Your task to perform on an android device: What's the weather going to be tomorrow? Image 0: 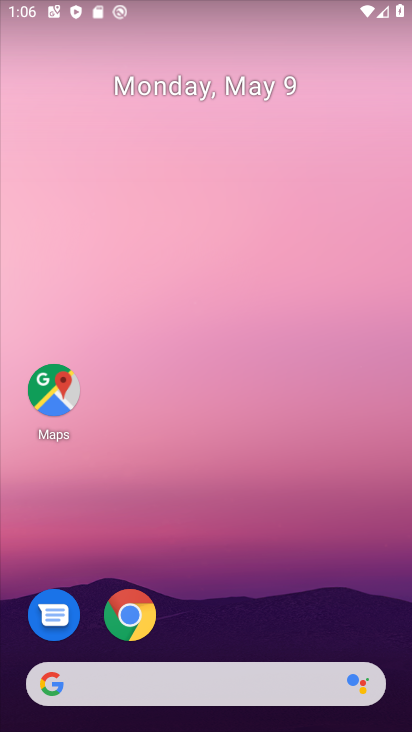
Step 0: drag from (207, 612) to (145, 57)
Your task to perform on an android device: What's the weather going to be tomorrow? Image 1: 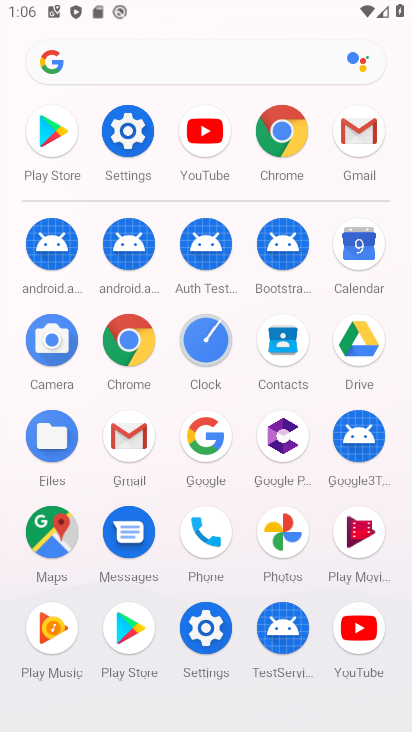
Step 1: click (201, 433)
Your task to perform on an android device: What's the weather going to be tomorrow? Image 2: 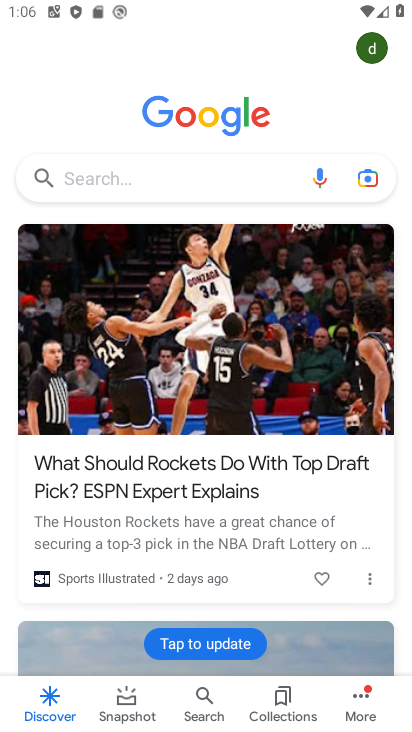
Step 2: click (218, 173)
Your task to perform on an android device: What's the weather going to be tomorrow? Image 3: 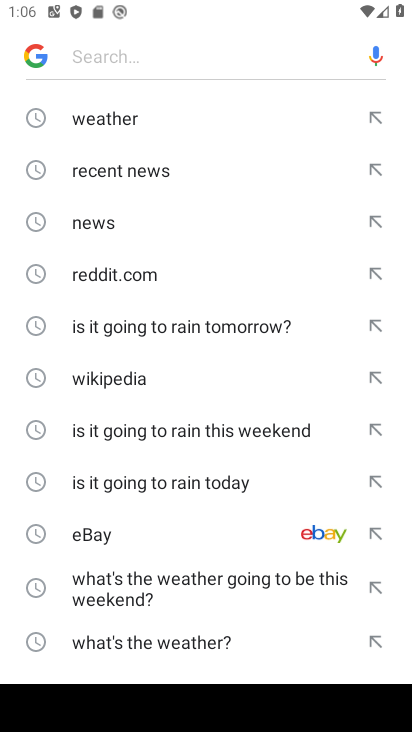
Step 3: click (135, 117)
Your task to perform on an android device: What's the weather going to be tomorrow? Image 4: 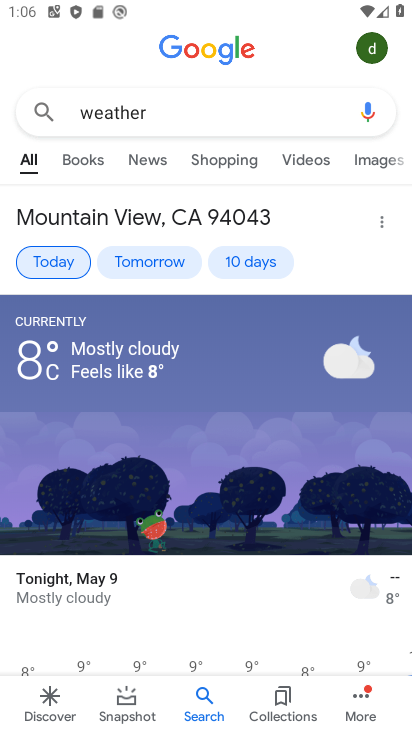
Step 4: click (150, 260)
Your task to perform on an android device: What's the weather going to be tomorrow? Image 5: 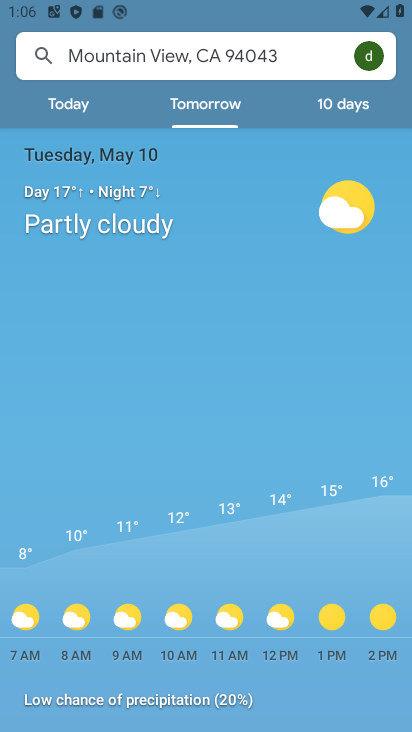
Step 5: task complete